Your task to perform on an android device: manage bookmarks in the chrome app Image 0: 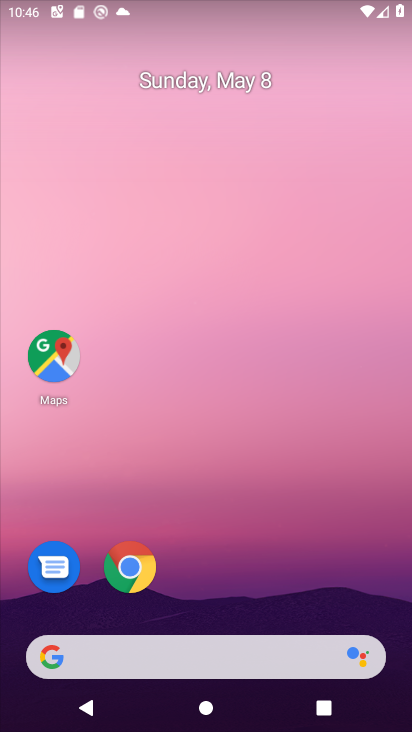
Step 0: drag from (255, 567) to (202, 201)
Your task to perform on an android device: manage bookmarks in the chrome app Image 1: 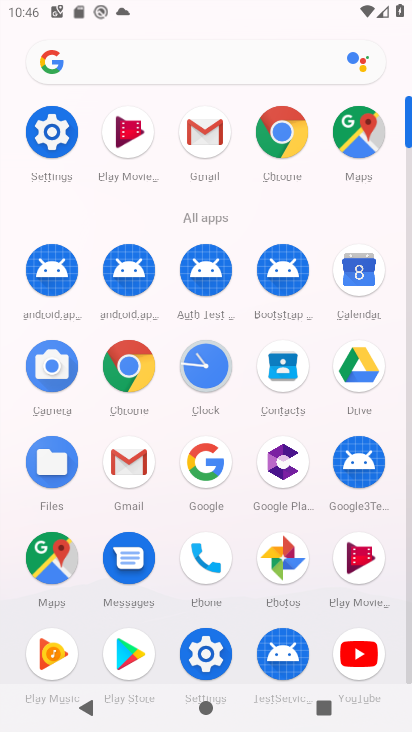
Step 1: click (289, 172)
Your task to perform on an android device: manage bookmarks in the chrome app Image 2: 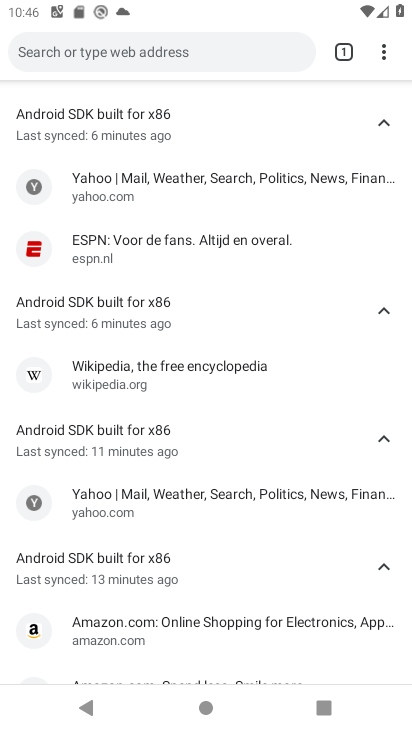
Step 2: click (387, 40)
Your task to perform on an android device: manage bookmarks in the chrome app Image 3: 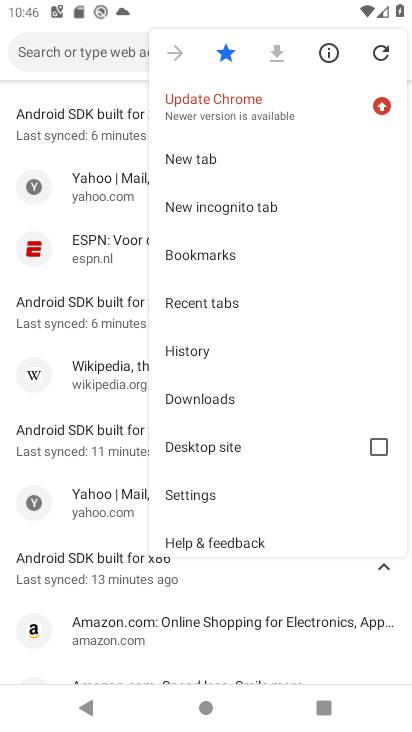
Step 3: click (248, 261)
Your task to perform on an android device: manage bookmarks in the chrome app Image 4: 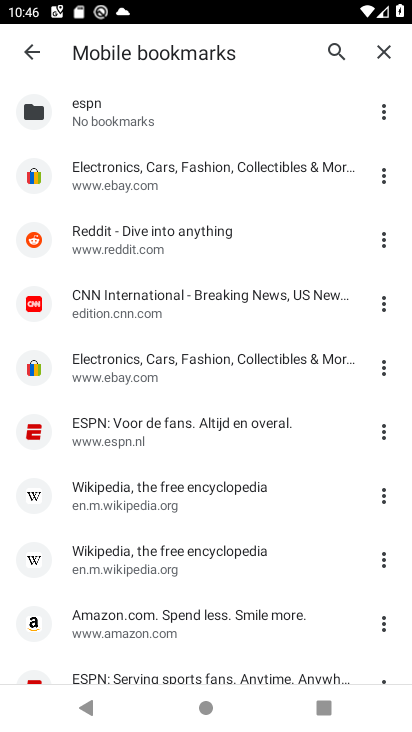
Step 4: task complete